Your task to perform on an android device: Open Google Chrome Image 0: 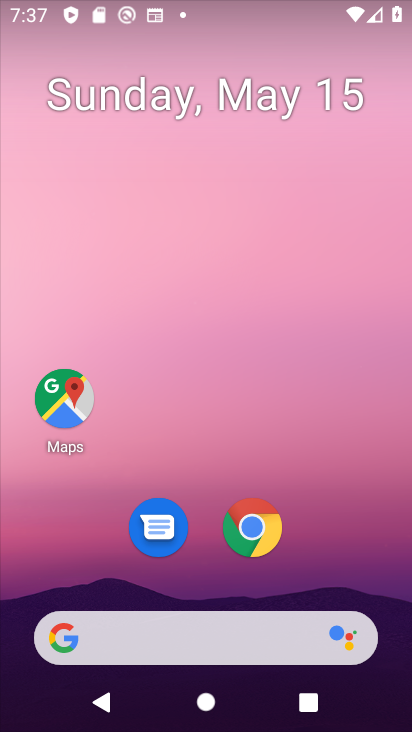
Step 0: click (255, 540)
Your task to perform on an android device: Open Google Chrome Image 1: 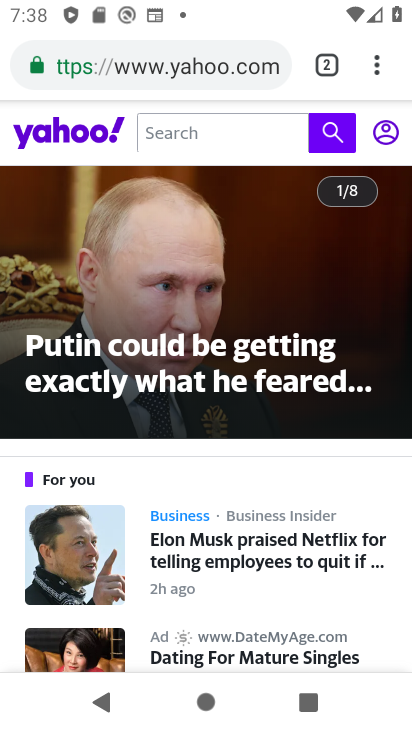
Step 1: task complete